Your task to perform on an android device: turn off sleep mode Image 0: 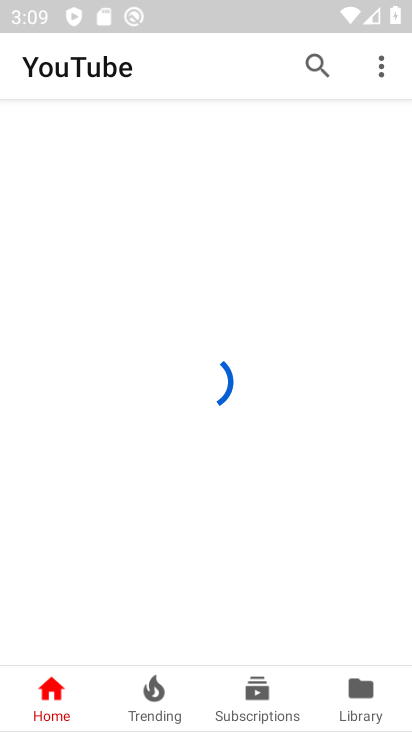
Step 0: drag from (366, 585) to (276, 134)
Your task to perform on an android device: turn off sleep mode Image 1: 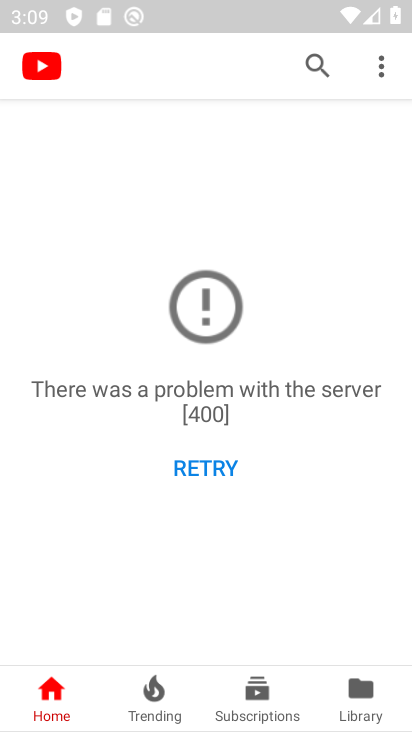
Step 1: press home button
Your task to perform on an android device: turn off sleep mode Image 2: 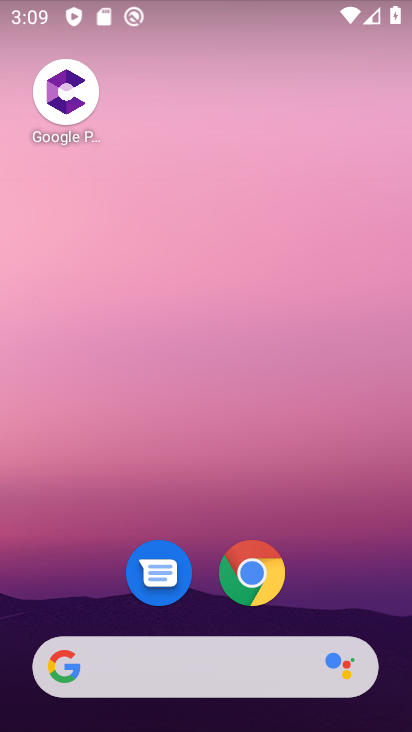
Step 2: drag from (340, 617) to (254, 125)
Your task to perform on an android device: turn off sleep mode Image 3: 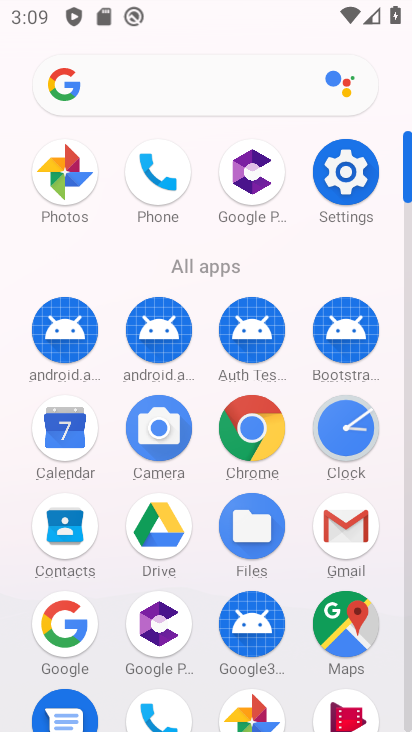
Step 3: click (409, 675)
Your task to perform on an android device: turn off sleep mode Image 4: 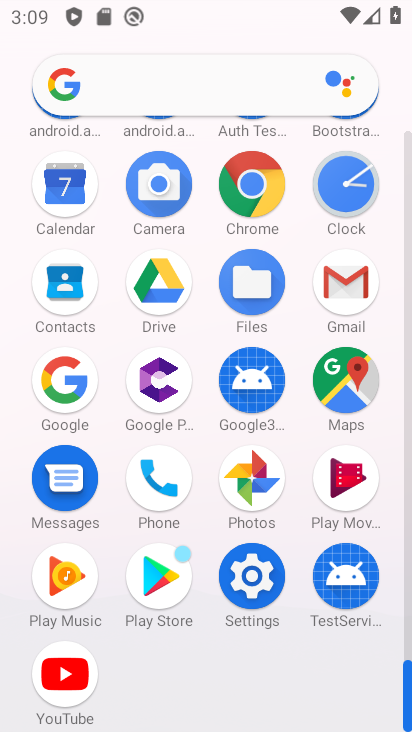
Step 4: click (263, 596)
Your task to perform on an android device: turn off sleep mode Image 5: 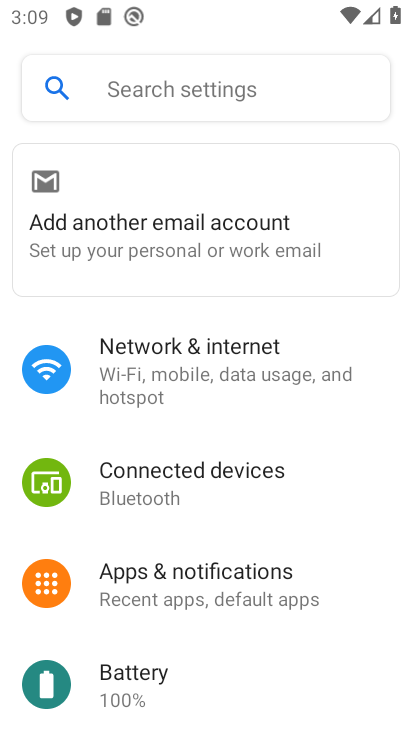
Step 5: drag from (371, 635) to (231, 284)
Your task to perform on an android device: turn off sleep mode Image 6: 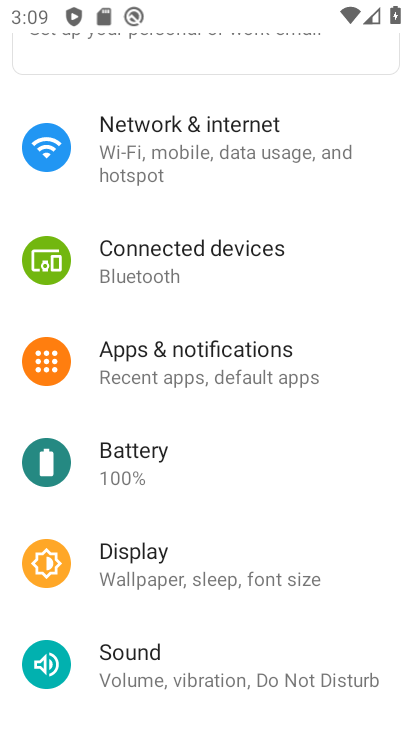
Step 6: click (218, 568)
Your task to perform on an android device: turn off sleep mode Image 7: 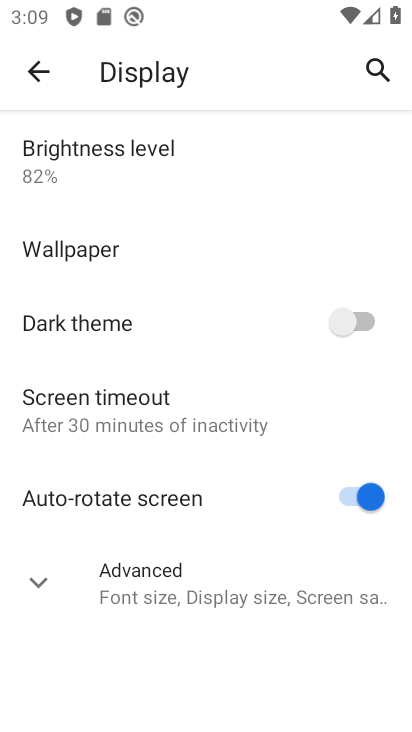
Step 7: click (372, 598)
Your task to perform on an android device: turn off sleep mode Image 8: 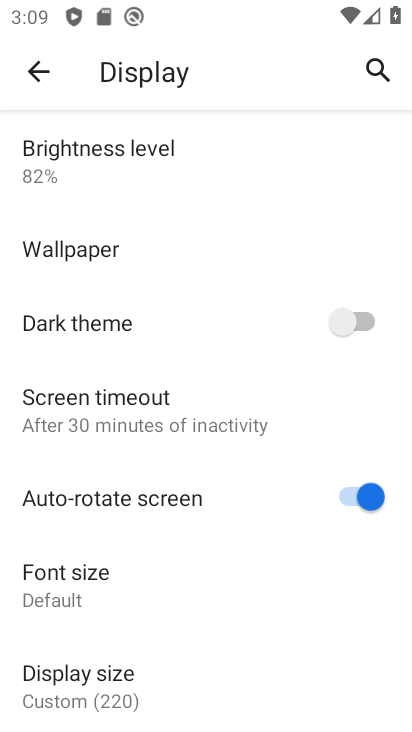
Step 8: task complete